Your task to perform on an android device: Open my contact list Image 0: 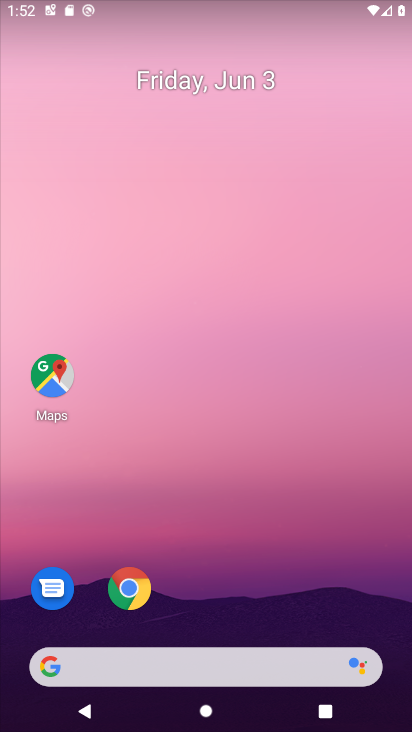
Step 0: drag from (245, 657) to (246, 122)
Your task to perform on an android device: Open my contact list Image 1: 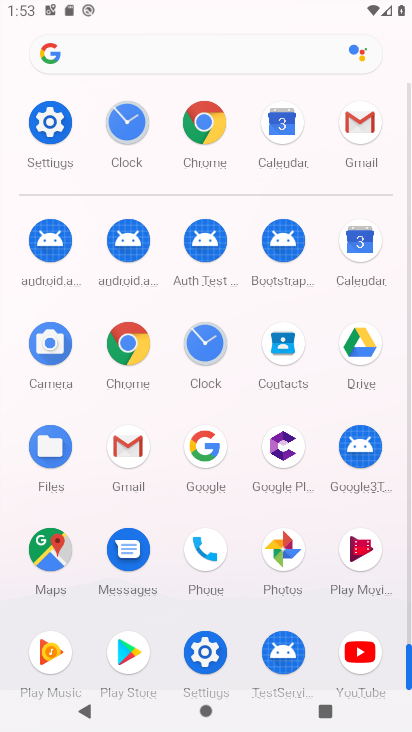
Step 1: click (288, 380)
Your task to perform on an android device: Open my contact list Image 2: 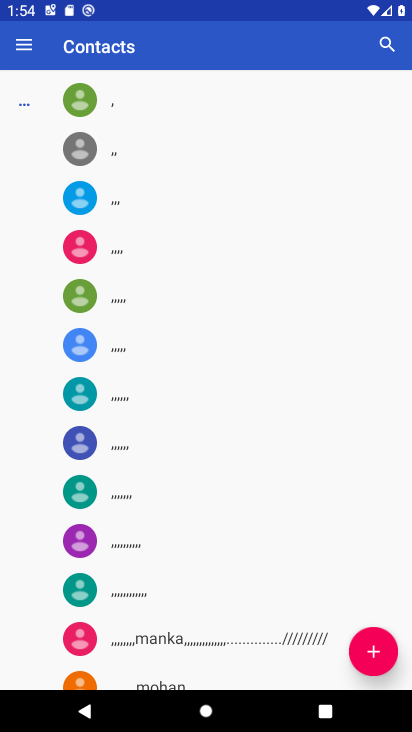
Step 2: task complete